Your task to perform on an android device: turn on priority inbox in the gmail app Image 0: 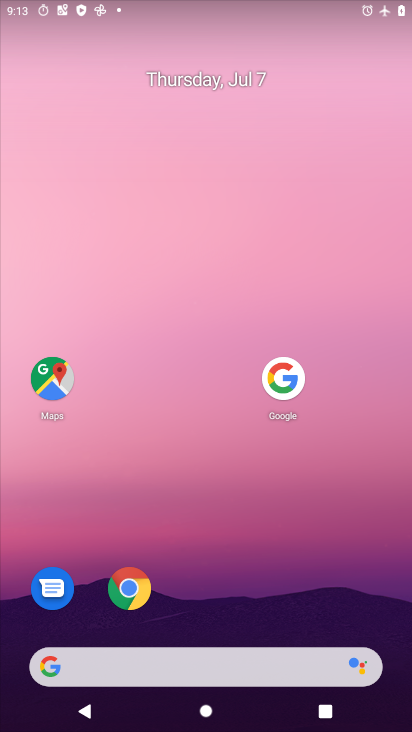
Step 0: press home button
Your task to perform on an android device: turn on priority inbox in the gmail app Image 1: 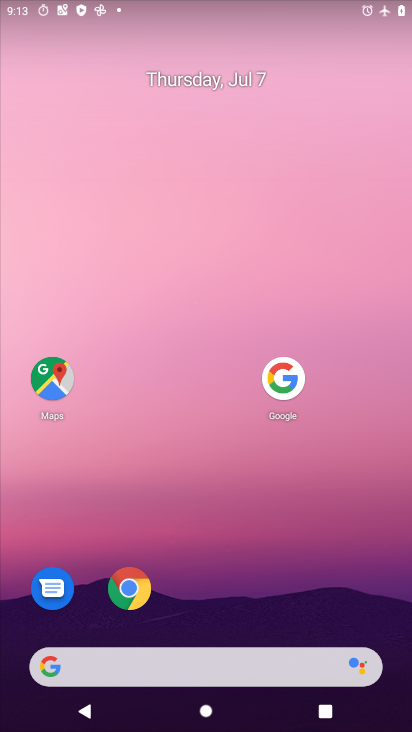
Step 1: drag from (144, 666) to (255, 189)
Your task to perform on an android device: turn on priority inbox in the gmail app Image 2: 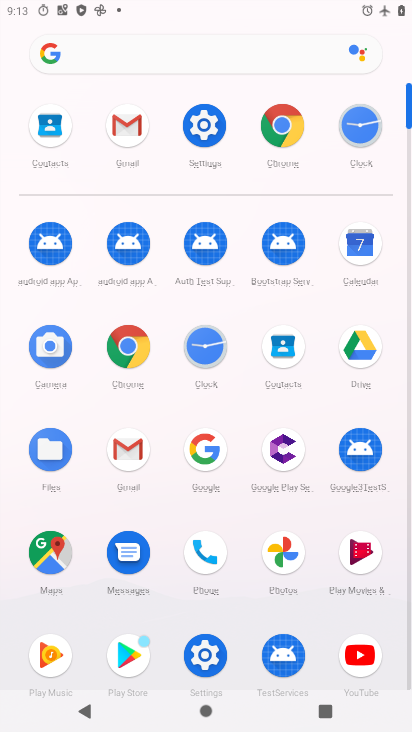
Step 2: click (137, 443)
Your task to perform on an android device: turn on priority inbox in the gmail app Image 3: 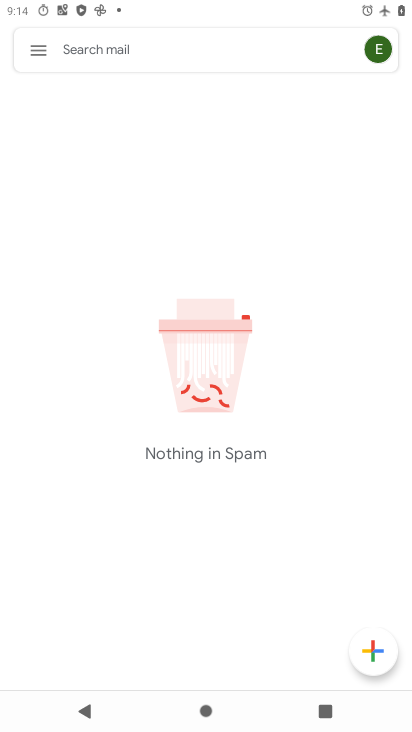
Step 3: click (36, 44)
Your task to perform on an android device: turn on priority inbox in the gmail app Image 4: 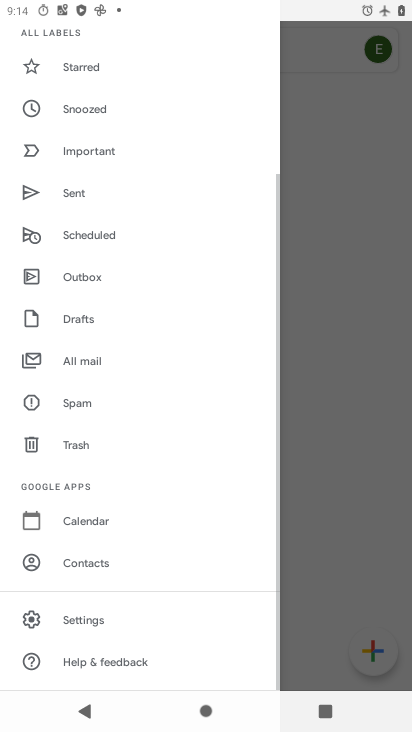
Step 4: click (98, 618)
Your task to perform on an android device: turn on priority inbox in the gmail app Image 5: 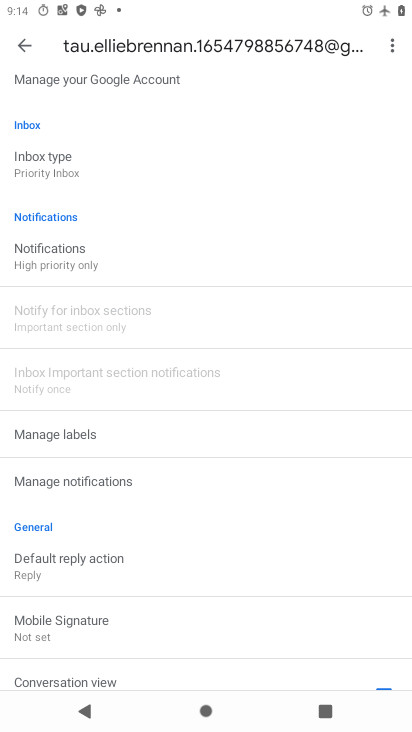
Step 5: click (68, 173)
Your task to perform on an android device: turn on priority inbox in the gmail app Image 6: 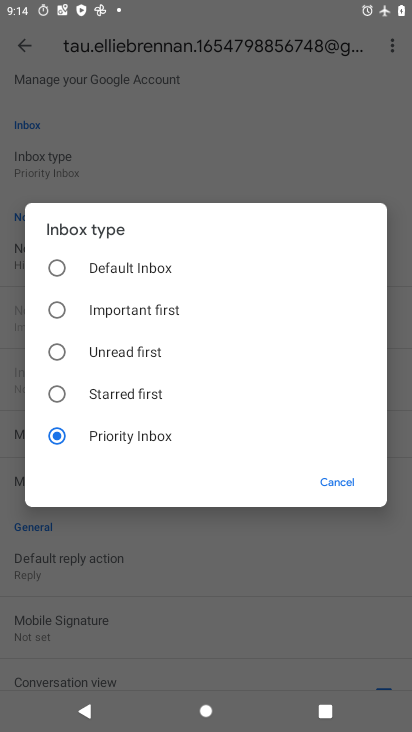
Step 6: task complete